Your task to perform on an android device: turn on the 24-hour format for clock Image 0: 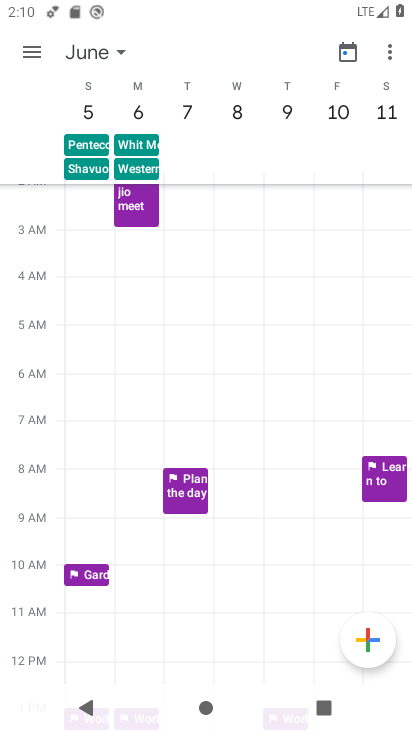
Step 0: press home button
Your task to perform on an android device: turn on the 24-hour format for clock Image 1: 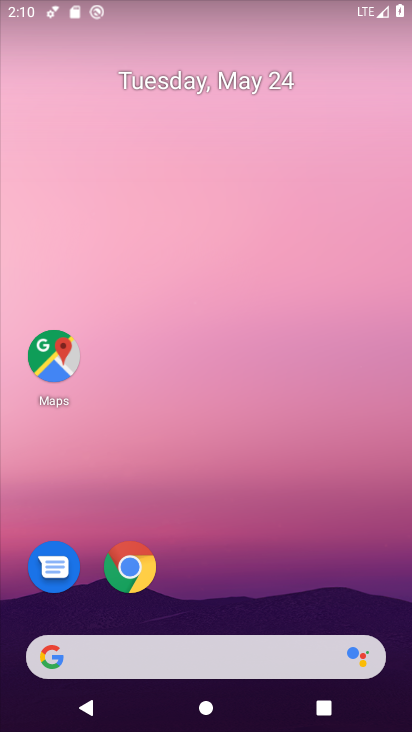
Step 1: drag from (183, 642) to (257, 6)
Your task to perform on an android device: turn on the 24-hour format for clock Image 2: 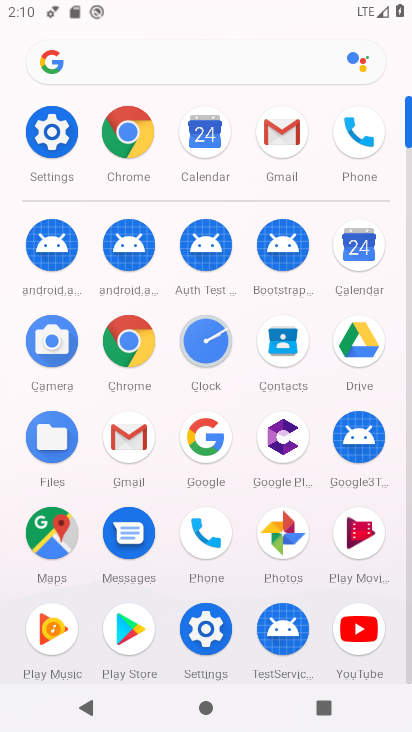
Step 2: click (221, 635)
Your task to perform on an android device: turn on the 24-hour format for clock Image 3: 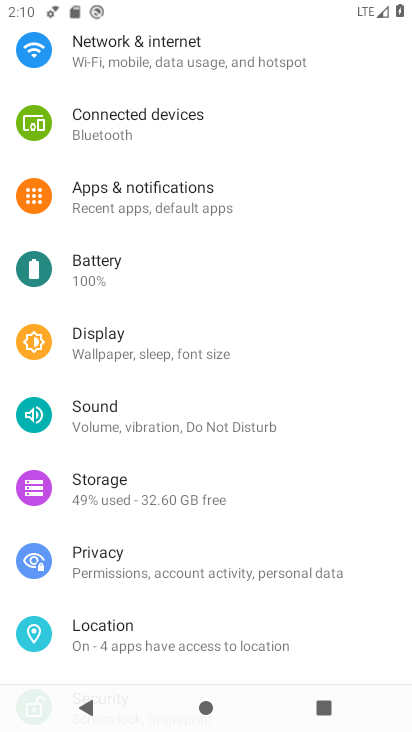
Step 3: drag from (159, 636) to (174, 449)
Your task to perform on an android device: turn on the 24-hour format for clock Image 4: 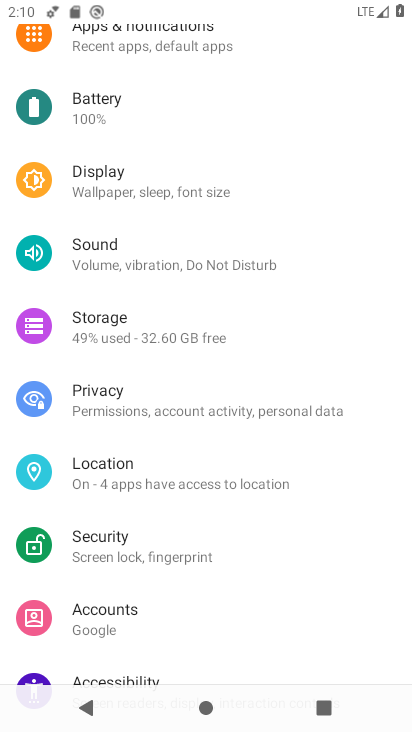
Step 4: drag from (146, 616) to (246, 278)
Your task to perform on an android device: turn on the 24-hour format for clock Image 5: 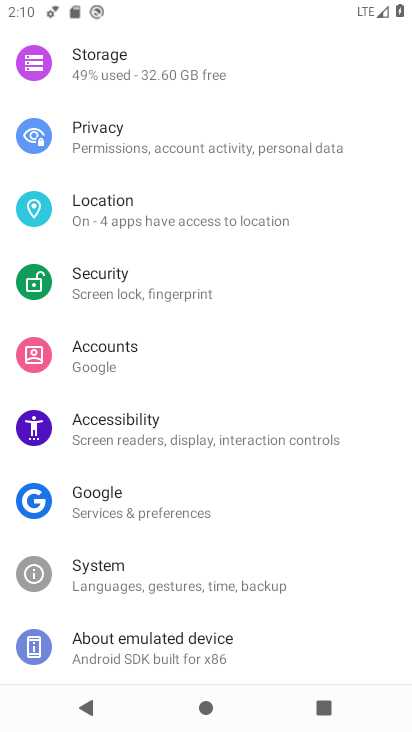
Step 5: drag from (153, 589) to (204, 343)
Your task to perform on an android device: turn on the 24-hour format for clock Image 6: 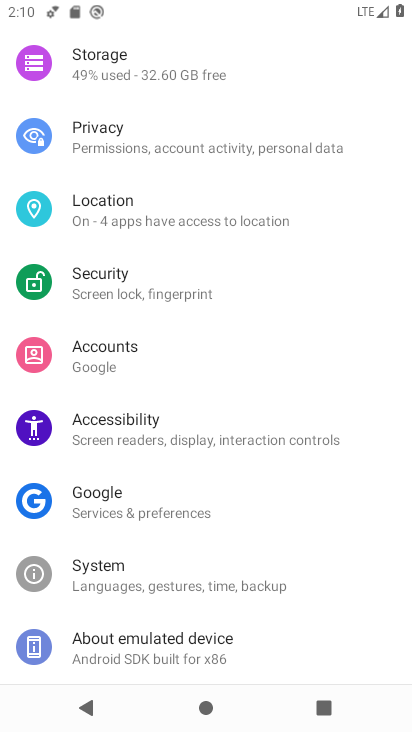
Step 6: click (139, 591)
Your task to perform on an android device: turn on the 24-hour format for clock Image 7: 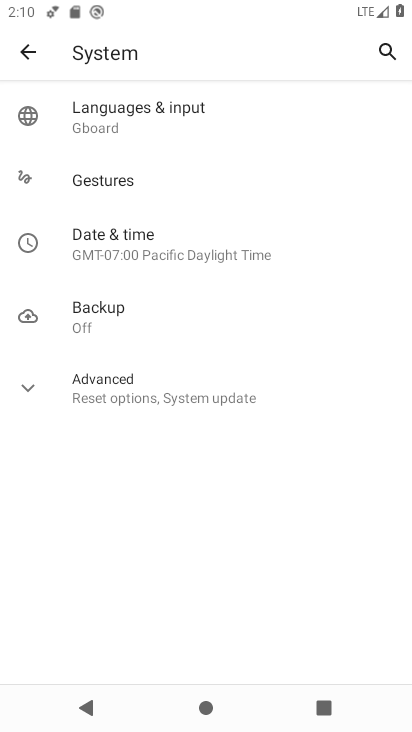
Step 7: click (169, 246)
Your task to perform on an android device: turn on the 24-hour format for clock Image 8: 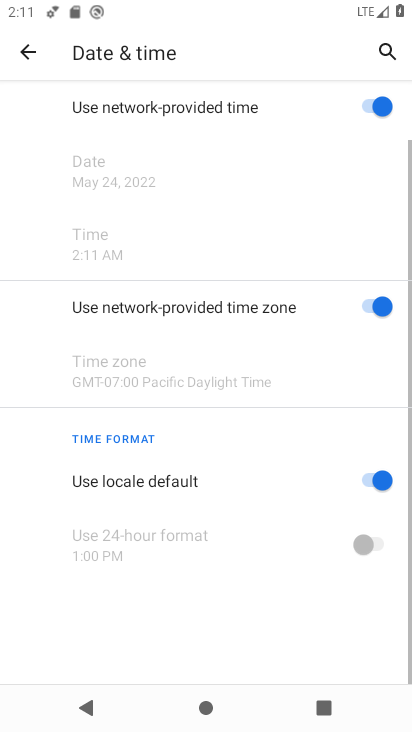
Step 8: click (364, 470)
Your task to perform on an android device: turn on the 24-hour format for clock Image 9: 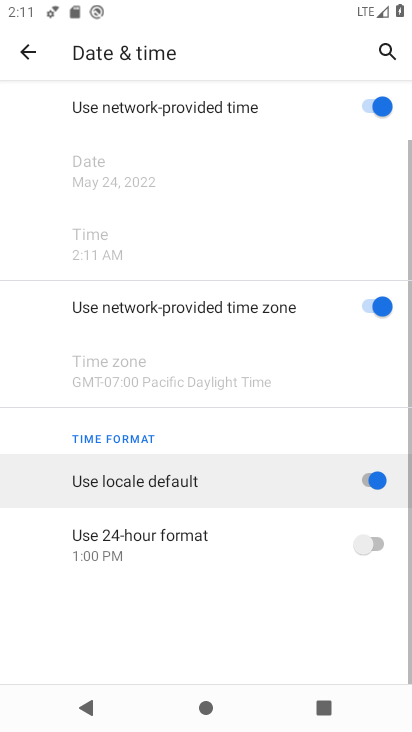
Step 9: click (382, 540)
Your task to perform on an android device: turn on the 24-hour format for clock Image 10: 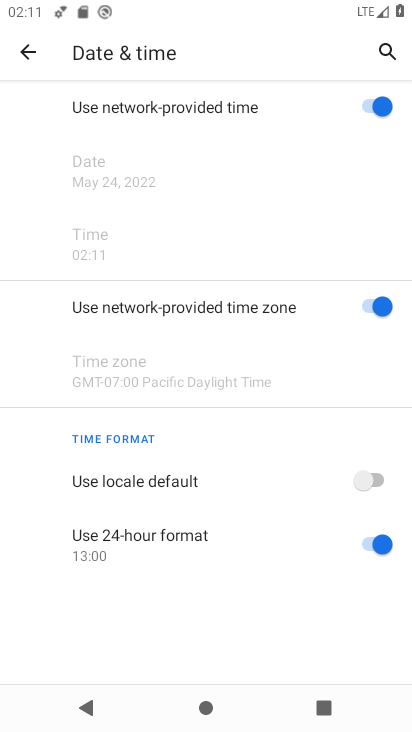
Step 10: task complete